Your task to perform on an android device: turn off data saver in the chrome app Image 0: 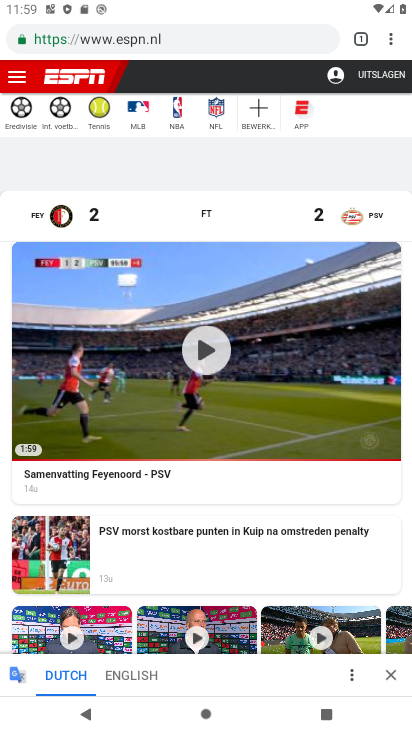
Step 0: click (390, 46)
Your task to perform on an android device: turn off data saver in the chrome app Image 1: 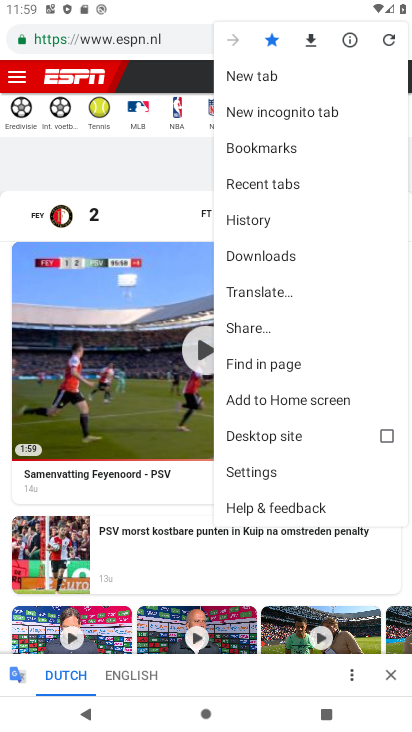
Step 1: click (269, 477)
Your task to perform on an android device: turn off data saver in the chrome app Image 2: 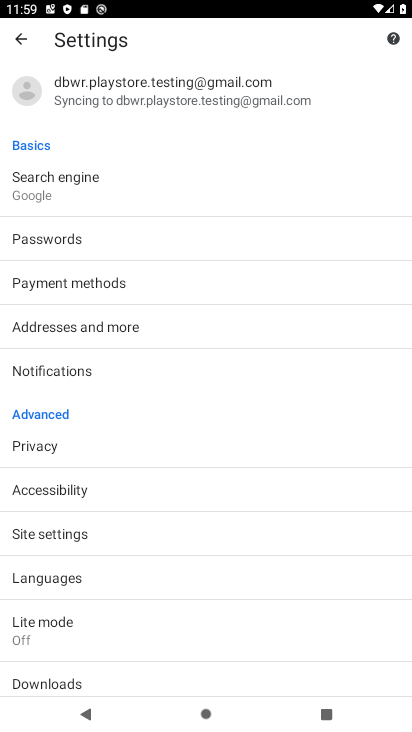
Step 2: drag from (195, 656) to (269, 415)
Your task to perform on an android device: turn off data saver in the chrome app Image 3: 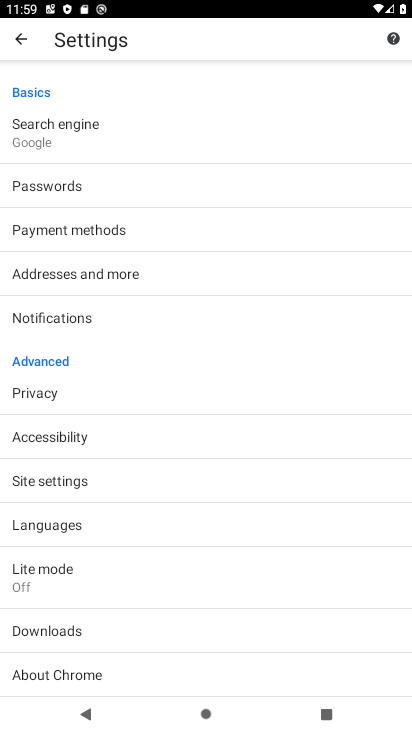
Step 3: click (174, 589)
Your task to perform on an android device: turn off data saver in the chrome app Image 4: 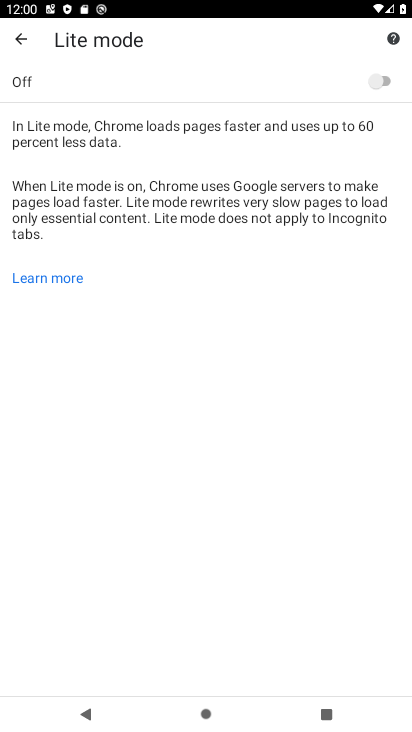
Step 4: task complete